Your task to perform on an android device: Open Yahoo.com Image 0: 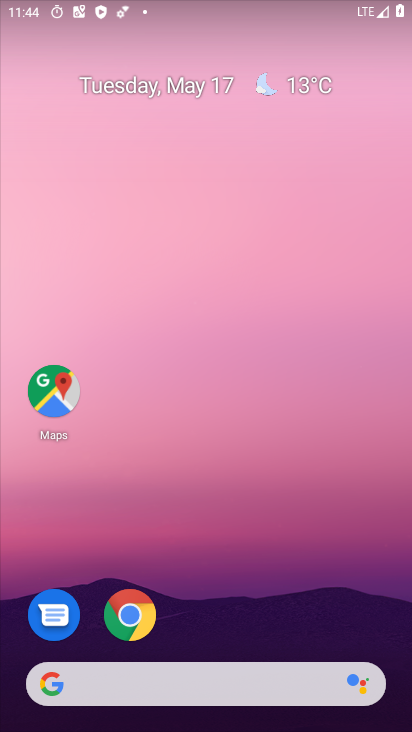
Step 0: press home button
Your task to perform on an android device: Open Yahoo.com Image 1: 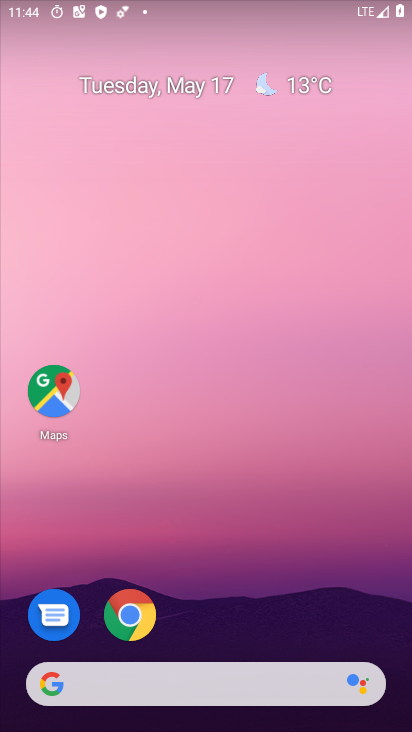
Step 1: click (122, 623)
Your task to perform on an android device: Open Yahoo.com Image 2: 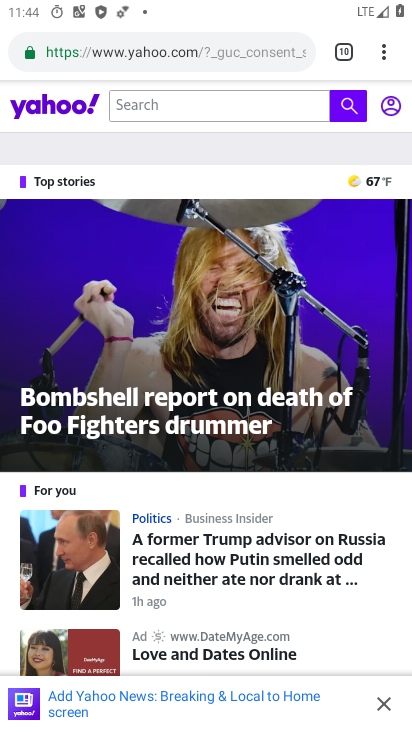
Step 2: task complete